Your task to perform on an android device: check out phone information Image 0: 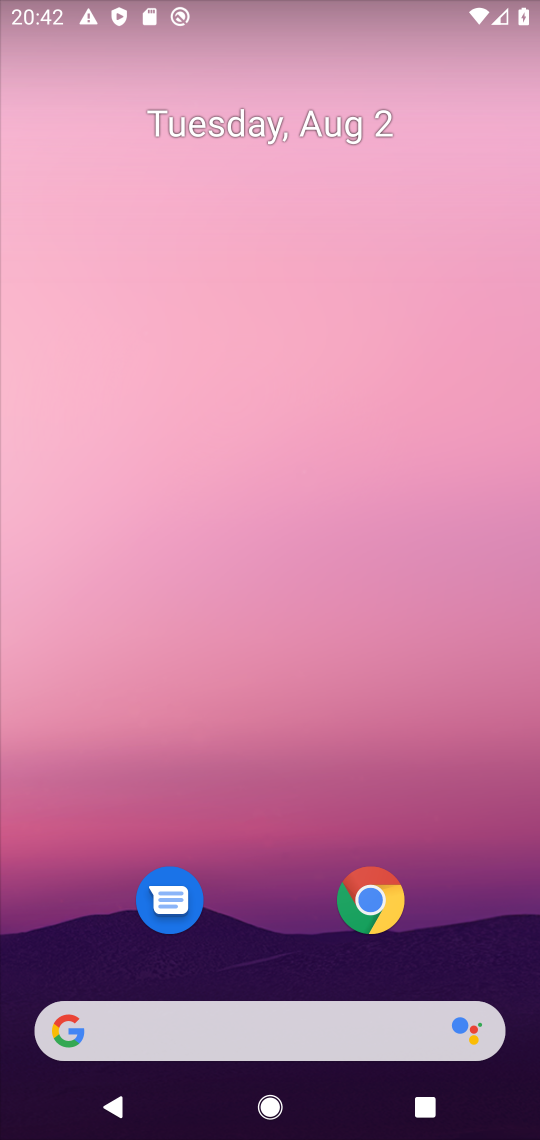
Step 0: drag from (290, 827) to (361, 0)
Your task to perform on an android device: check out phone information Image 1: 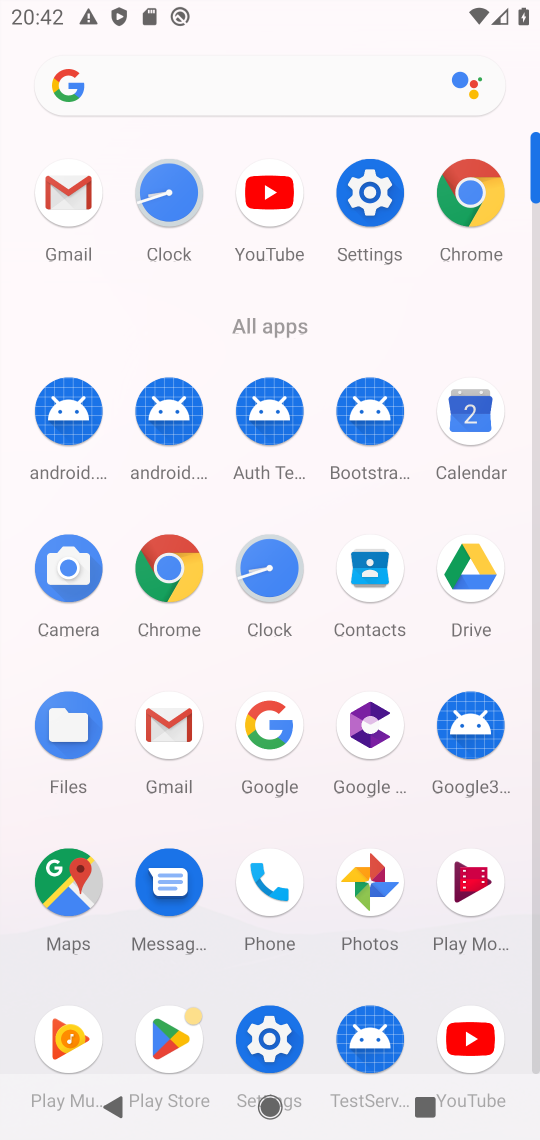
Step 1: click (268, 881)
Your task to perform on an android device: check out phone information Image 2: 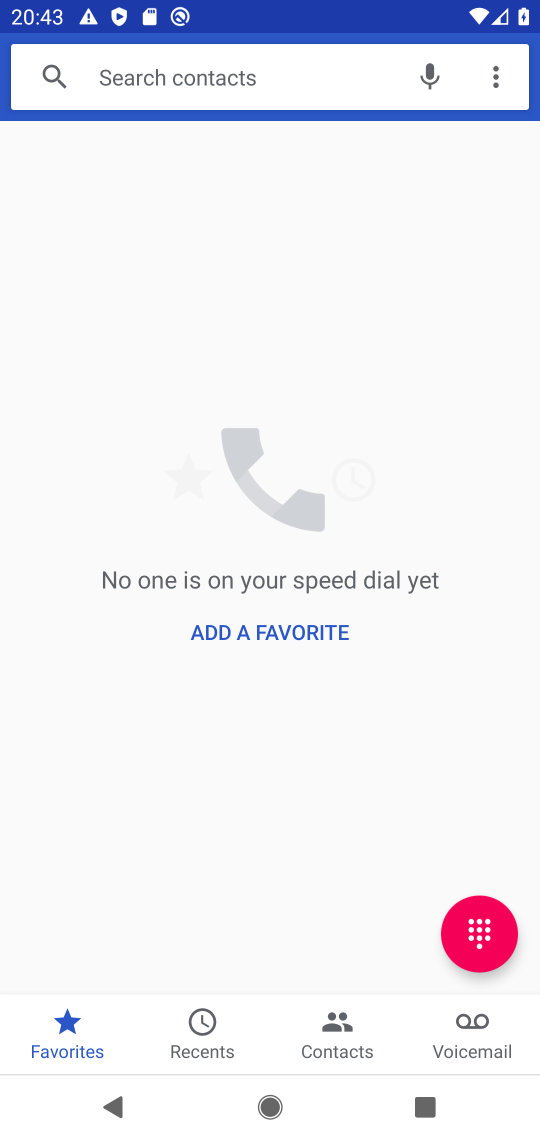
Step 2: click (494, 84)
Your task to perform on an android device: check out phone information Image 3: 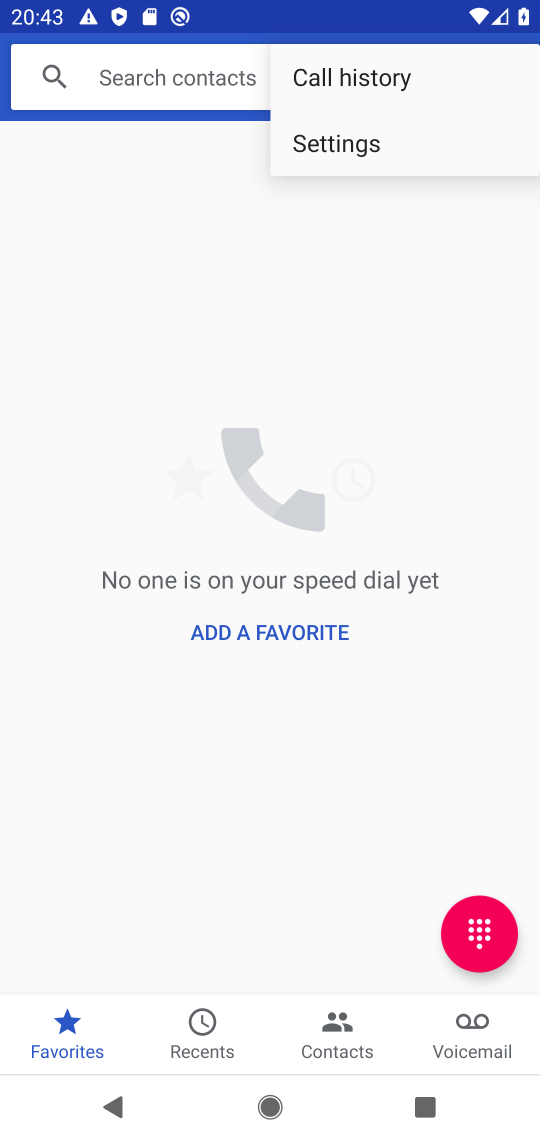
Step 3: click (417, 146)
Your task to perform on an android device: check out phone information Image 4: 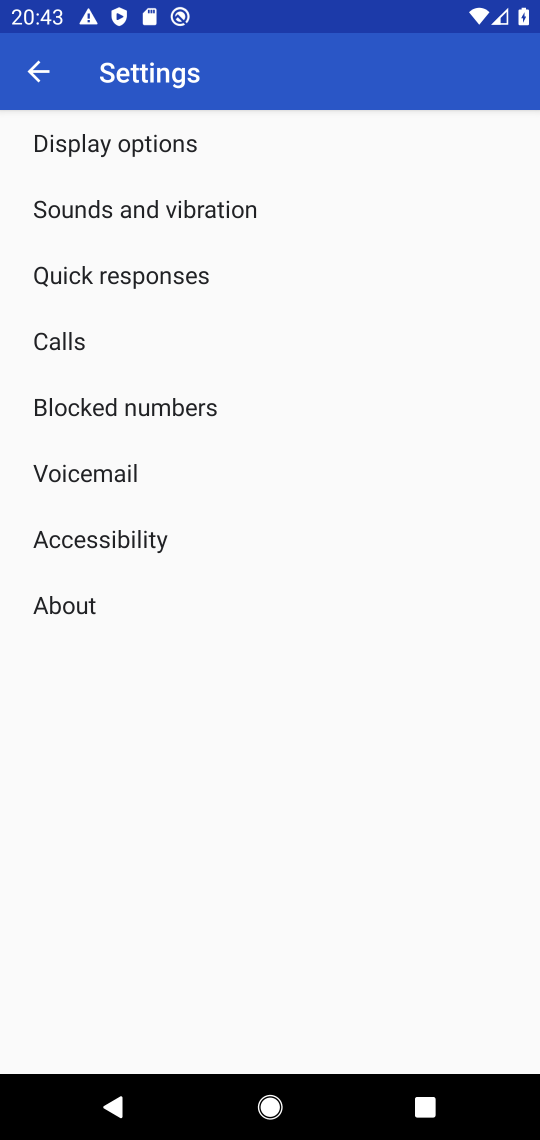
Step 4: click (86, 604)
Your task to perform on an android device: check out phone information Image 5: 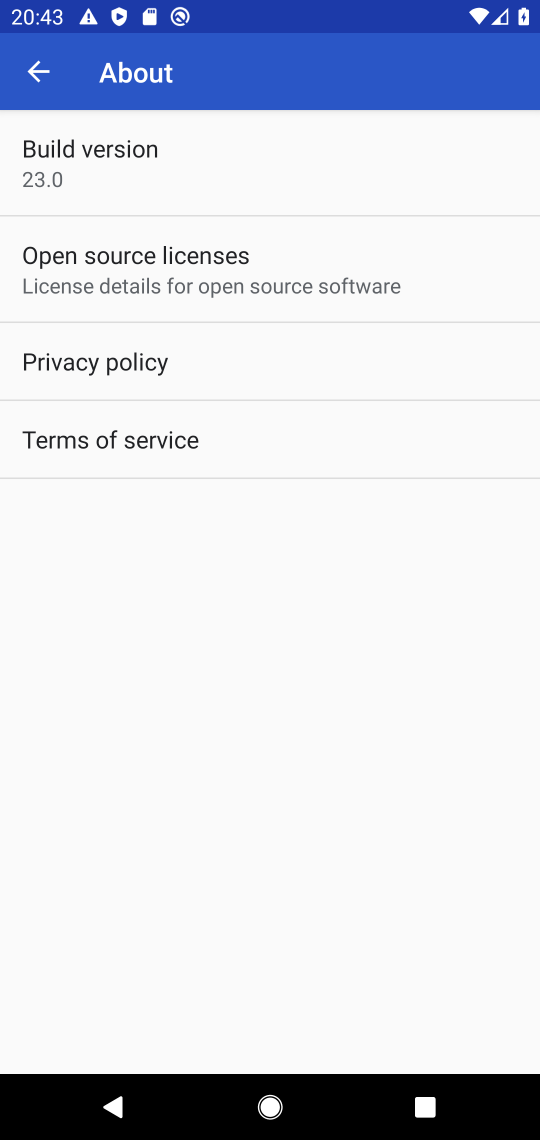
Step 5: task complete